Your task to perform on an android device: Search for Mexican restaurants on Maps Image 0: 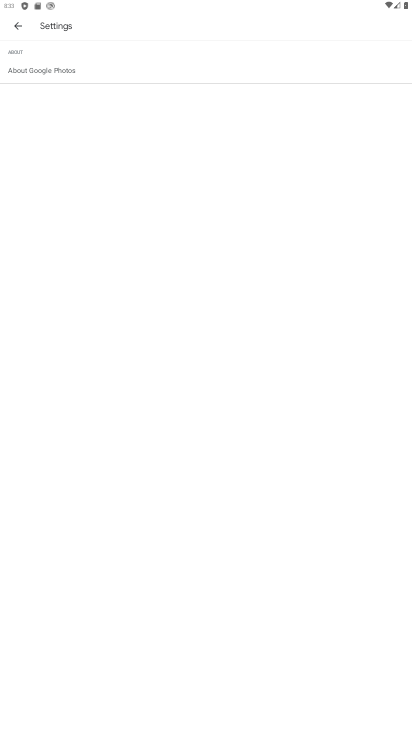
Step 0: press home button
Your task to perform on an android device: Search for Mexican restaurants on Maps Image 1: 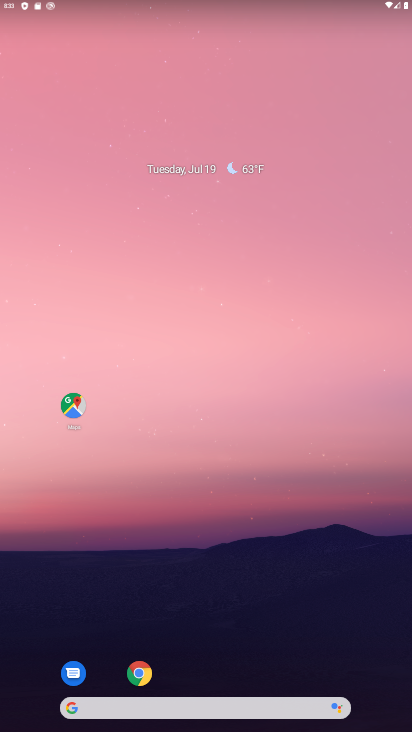
Step 1: drag from (204, 663) to (228, 229)
Your task to perform on an android device: Search for Mexican restaurants on Maps Image 2: 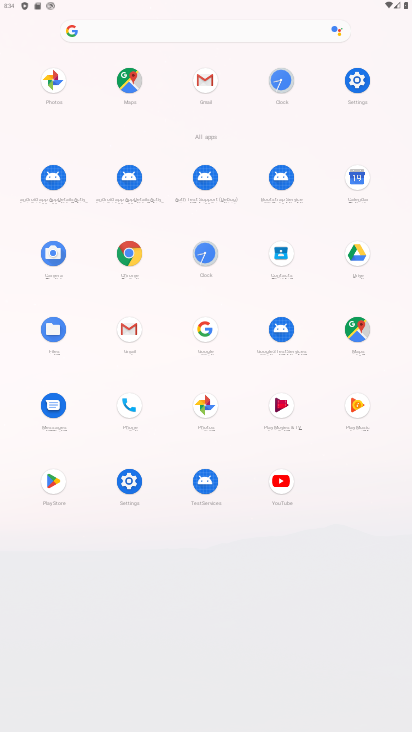
Step 2: click (356, 325)
Your task to perform on an android device: Search for Mexican restaurants on Maps Image 3: 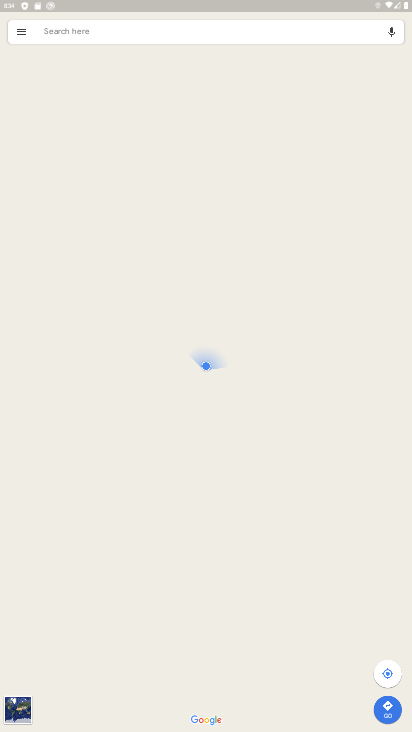
Step 3: click (129, 31)
Your task to perform on an android device: Search for Mexican restaurants on Maps Image 4: 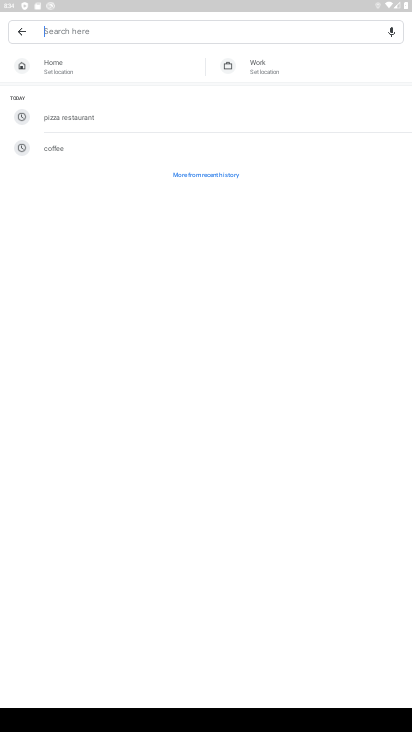
Step 4: type "Mexican restaurants"
Your task to perform on an android device: Search for Mexican restaurants on Maps Image 5: 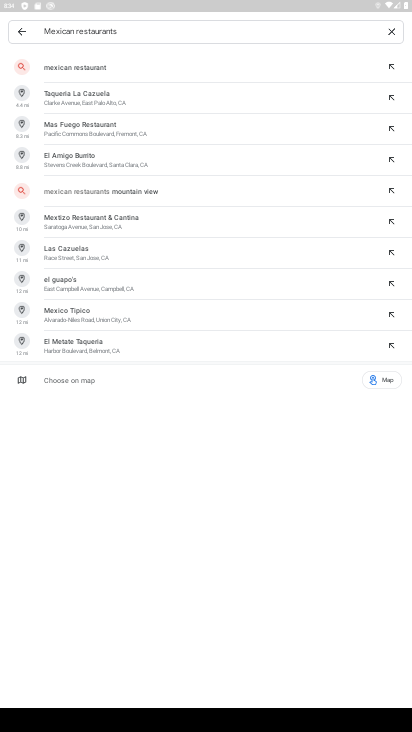
Step 5: click (114, 76)
Your task to perform on an android device: Search for Mexican restaurants on Maps Image 6: 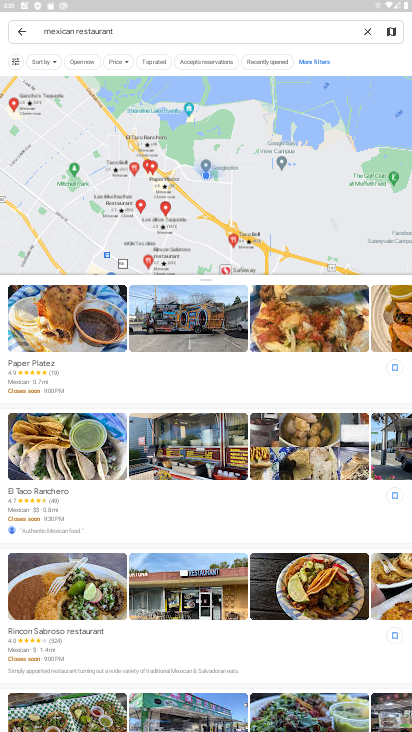
Step 6: task complete